Your task to perform on an android device: allow cookies in the chrome app Image 0: 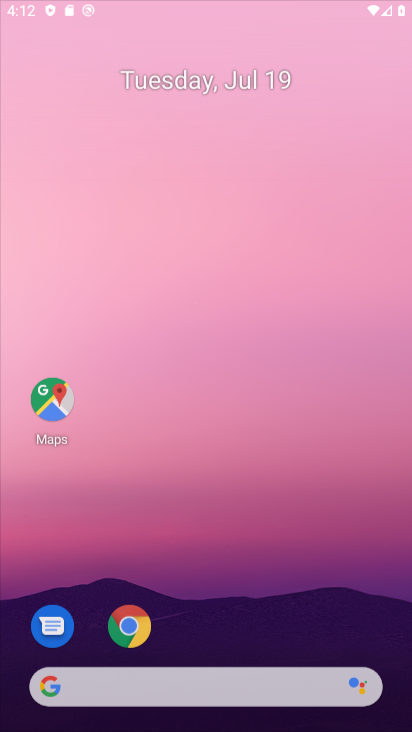
Step 0: press home button
Your task to perform on an android device: allow cookies in the chrome app Image 1: 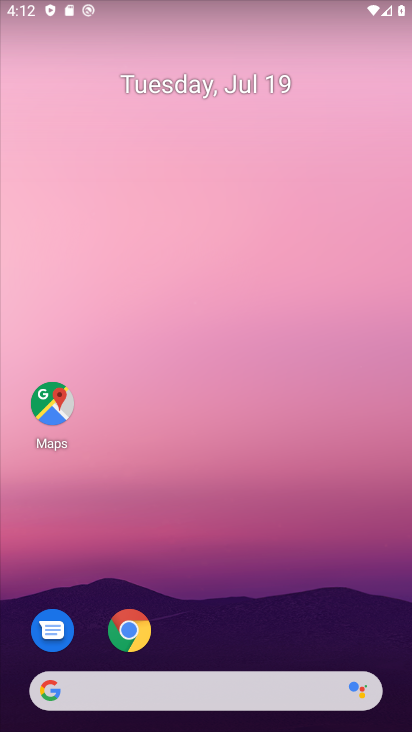
Step 1: press home button
Your task to perform on an android device: allow cookies in the chrome app Image 2: 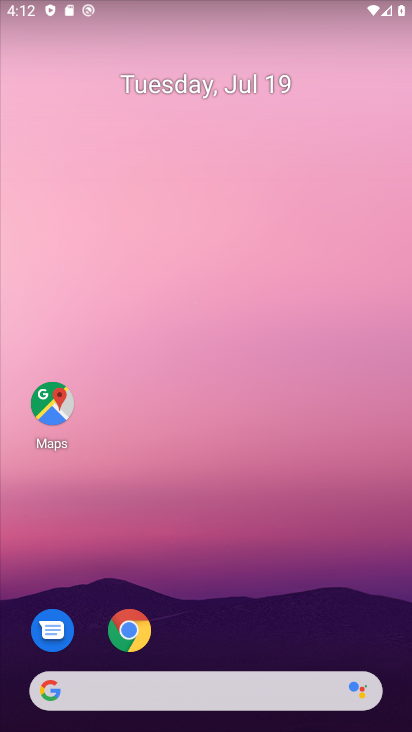
Step 2: press home button
Your task to perform on an android device: allow cookies in the chrome app Image 3: 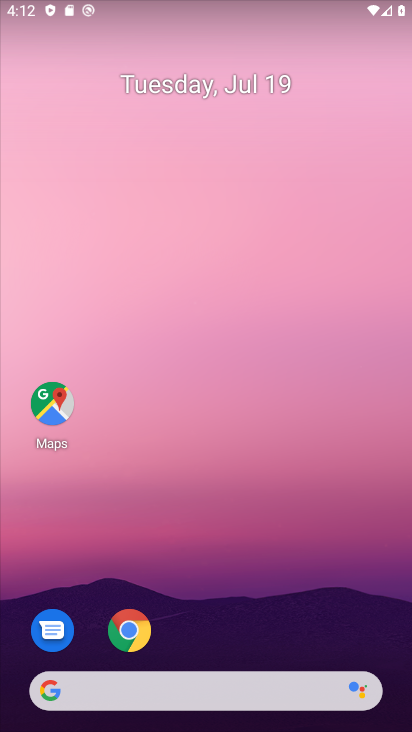
Step 3: click (124, 632)
Your task to perform on an android device: allow cookies in the chrome app Image 4: 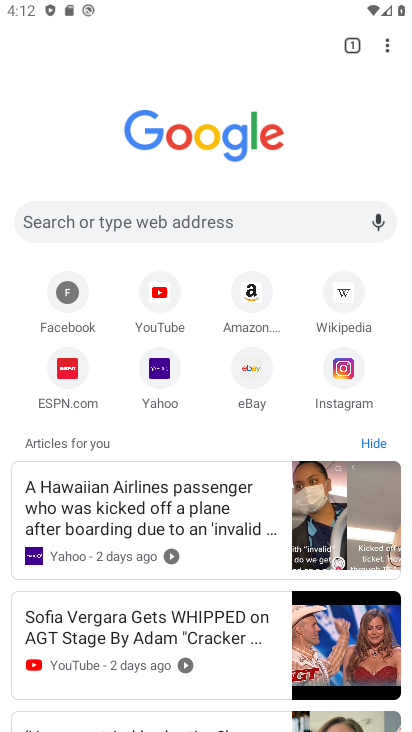
Step 4: click (383, 36)
Your task to perform on an android device: allow cookies in the chrome app Image 5: 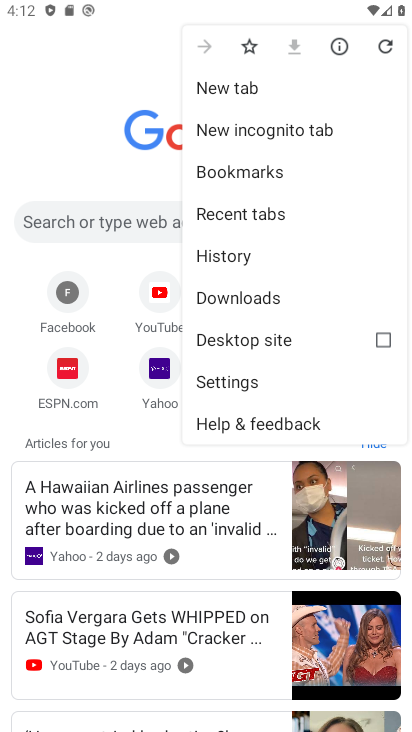
Step 5: click (245, 380)
Your task to perform on an android device: allow cookies in the chrome app Image 6: 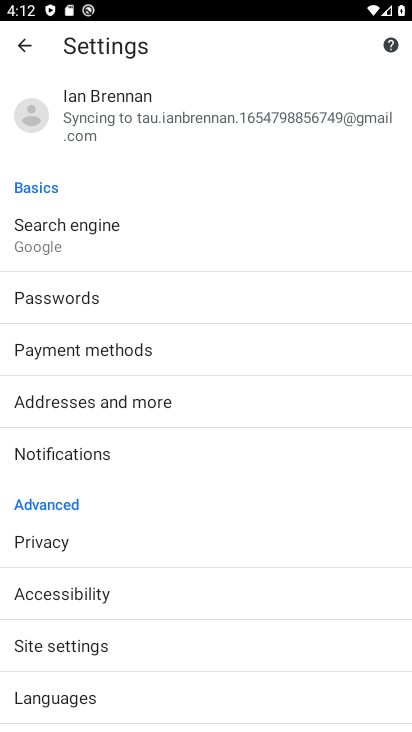
Step 6: click (84, 645)
Your task to perform on an android device: allow cookies in the chrome app Image 7: 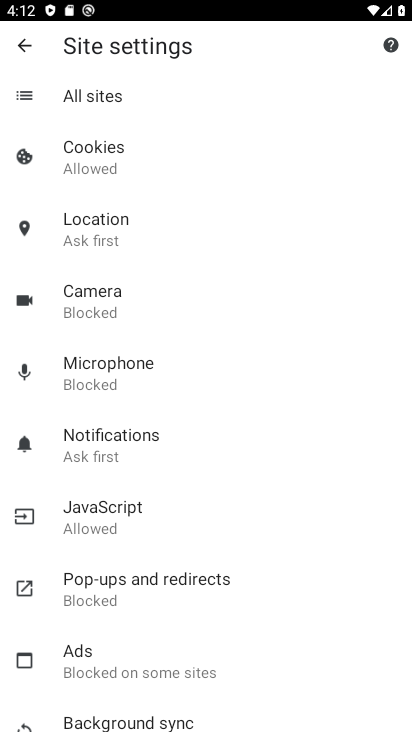
Step 7: click (98, 169)
Your task to perform on an android device: allow cookies in the chrome app Image 8: 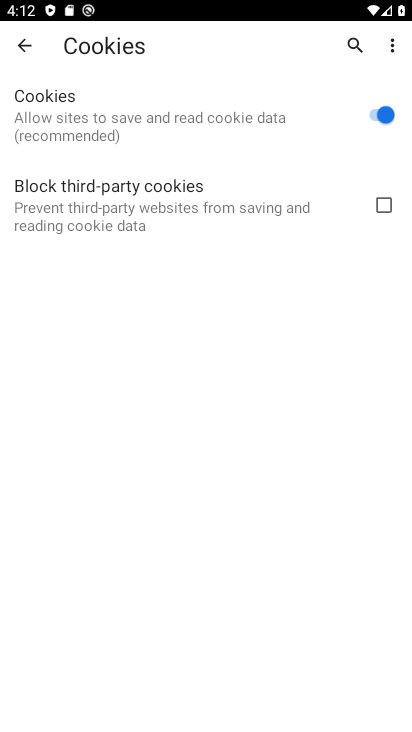
Step 8: task complete